Your task to perform on an android device: delete a single message in the gmail app Image 0: 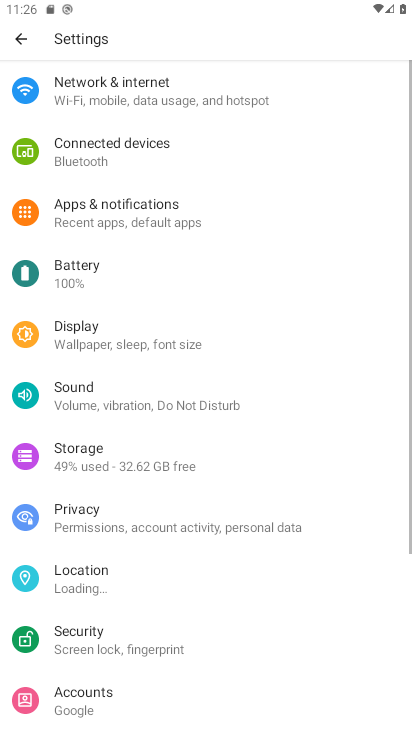
Step 0: press home button
Your task to perform on an android device: delete a single message in the gmail app Image 1: 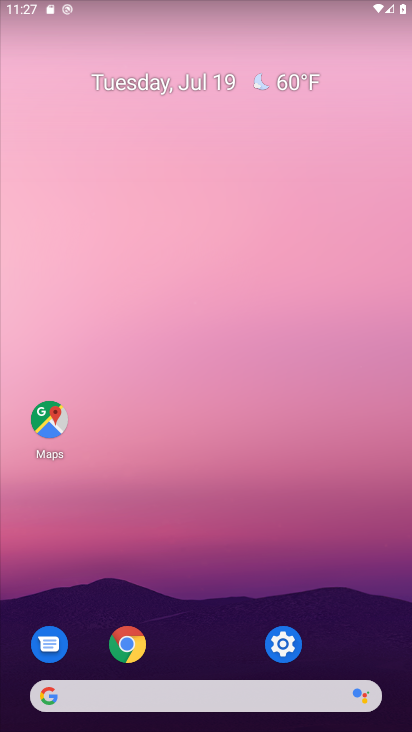
Step 1: drag from (236, 713) to (337, 169)
Your task to perform on an android device: delete a single message in the gmail app Image 2: 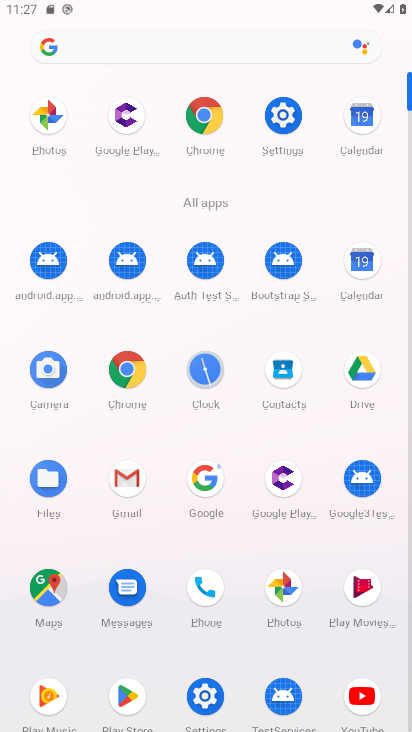
Step 2: drag from (123, 469) to (139, 519)
Your task to perform on an android device: delete a single message in the gmail app Image 3: 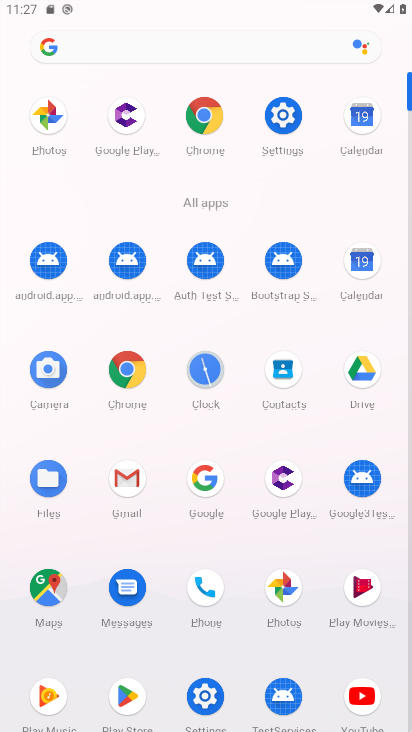
Step 3: drag from (125, 473) to (213, 629)
Your task to perform on an android device: delete a single message in the gmail app Image 4: 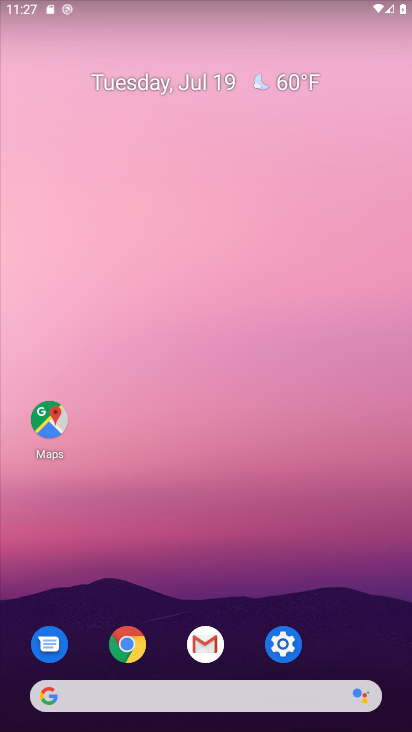
Step 4: click (212, 639)
Your task to perform on an android device: delete a single message in the gmail app Image 5: 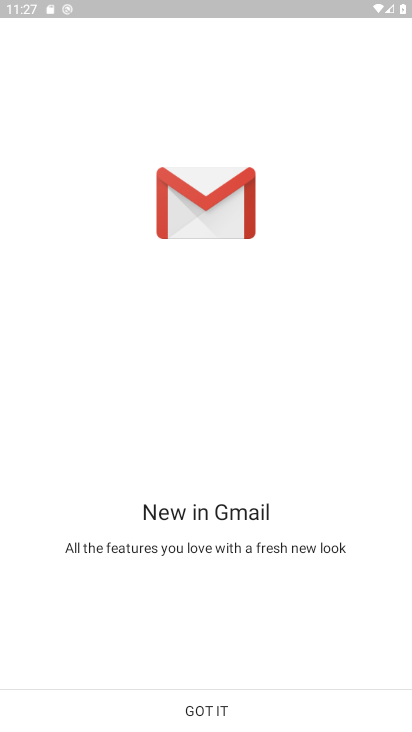
Step 5: click (181, 715)
Your task to perform on an android device: delete a single message in the gmail app Image 6: 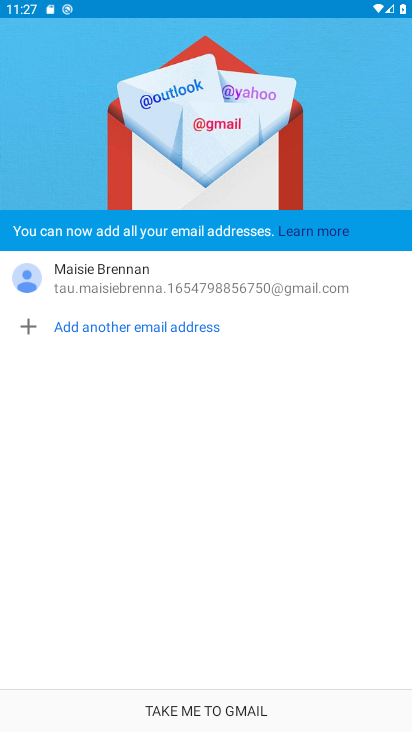
Step 6: click (188, 713)
Your task to perform on an android device: delete a single message in the gmail app Image 7: 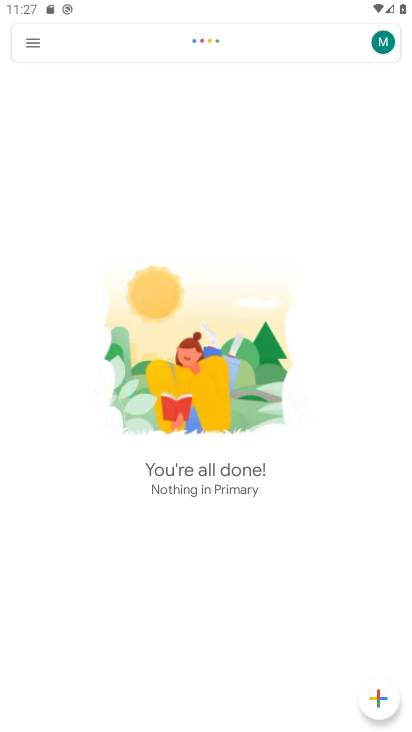
Step 7: click (32, 49)
Your task to perform on an android device: delete a single message in the gmail app Image 8: 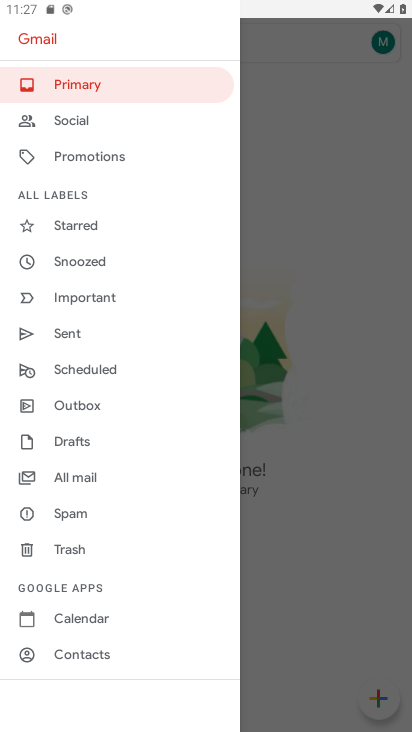
Step 8: click (77, 475)
Your task to perform on an android device: delete a single message in the gmail app Image 9: 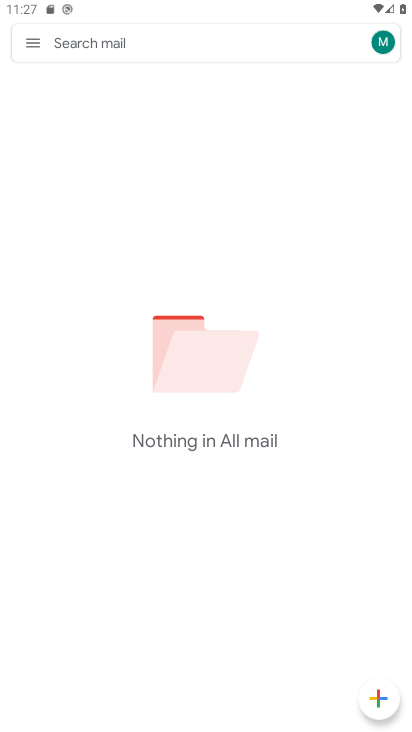
Step 9: task complete